Your task to perform on an android device: Add macbook air to the cart on walmart Image 0: 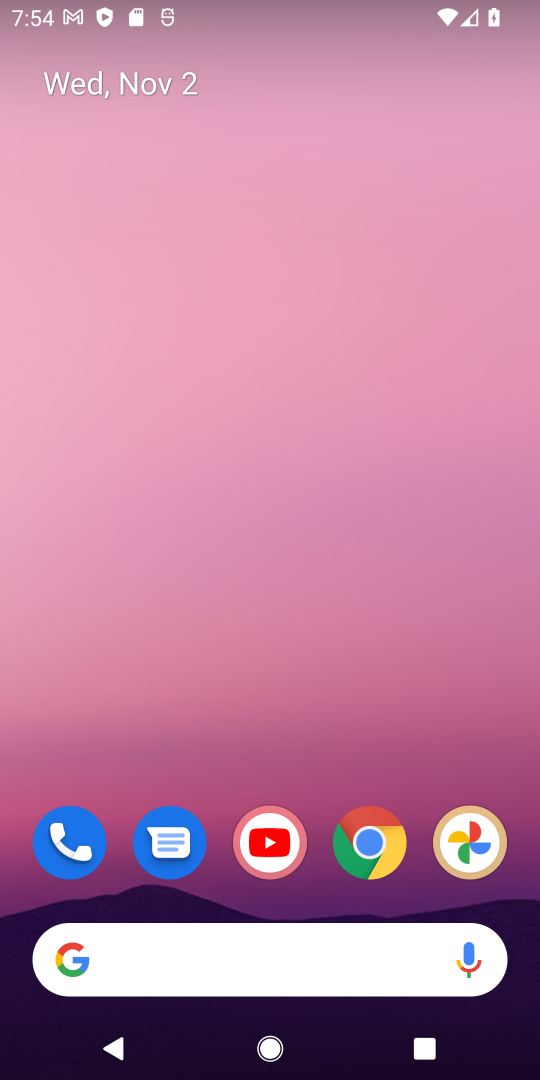
Step 0: drag from (160, 904) to (174, 326)
Your task to perform on an android device: Add macbook air to the cart on walmart Image 1: 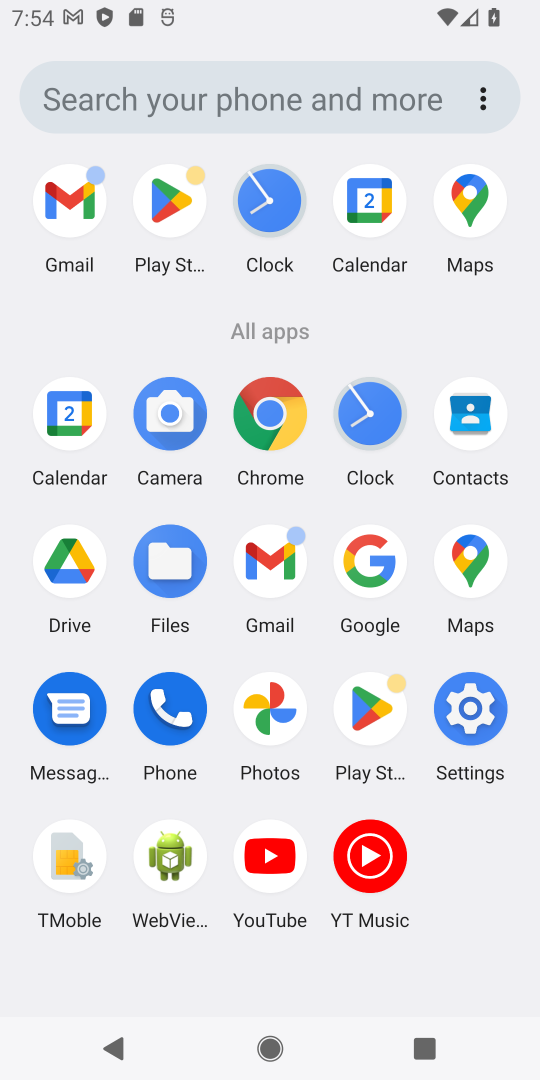
Step 1: click (351, 557)
Your task to perform on an android device: Add macbook air to the cart on walmart Image 2: 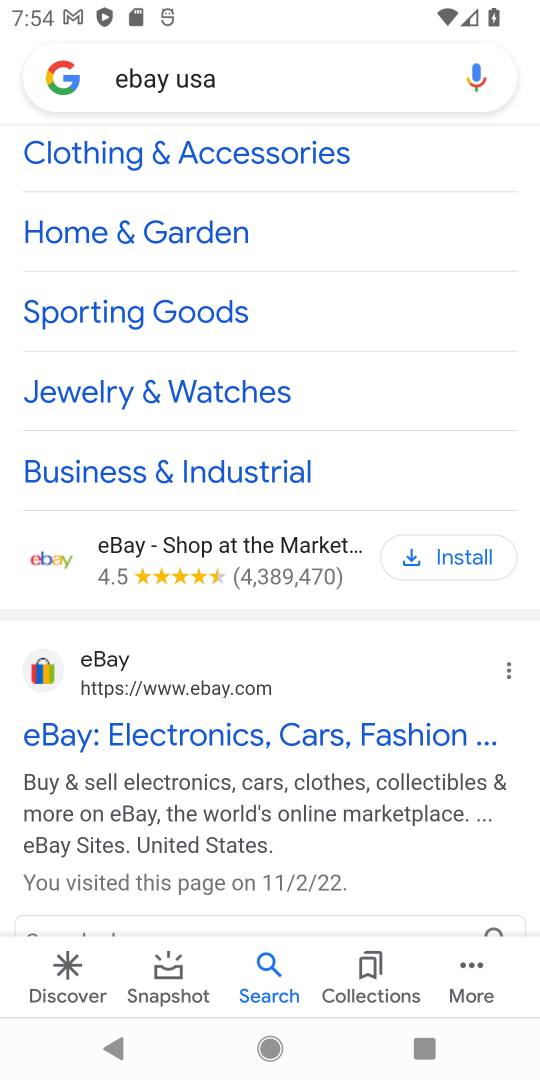
Step 2: click (221, 78)
Your task to perform on an android device: Add macbook air to the cart on walmart Image 3: 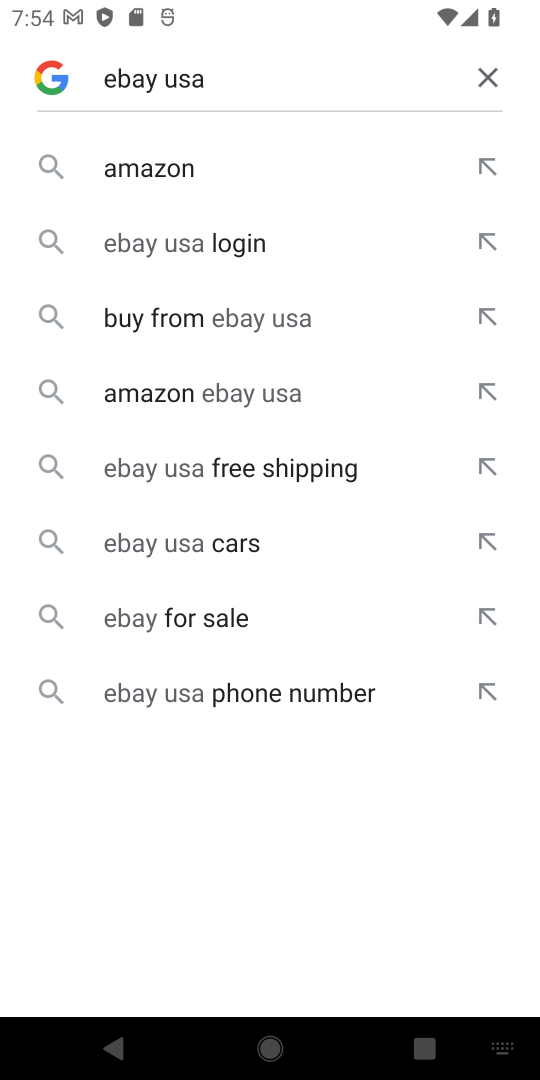
Step 3: click (474, 77)
Your task to perform on an android device: Add macbook air to the cart on walmart Image 4: 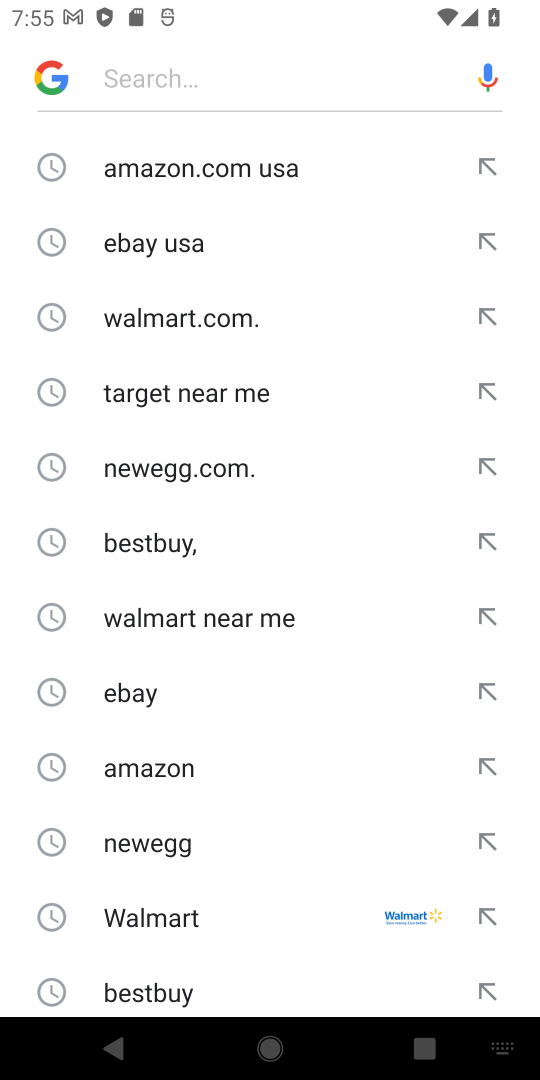
Step 4: click (215, 78)
Your task to perform on an android device: Add macbook air to the cart on walmart Image 5: 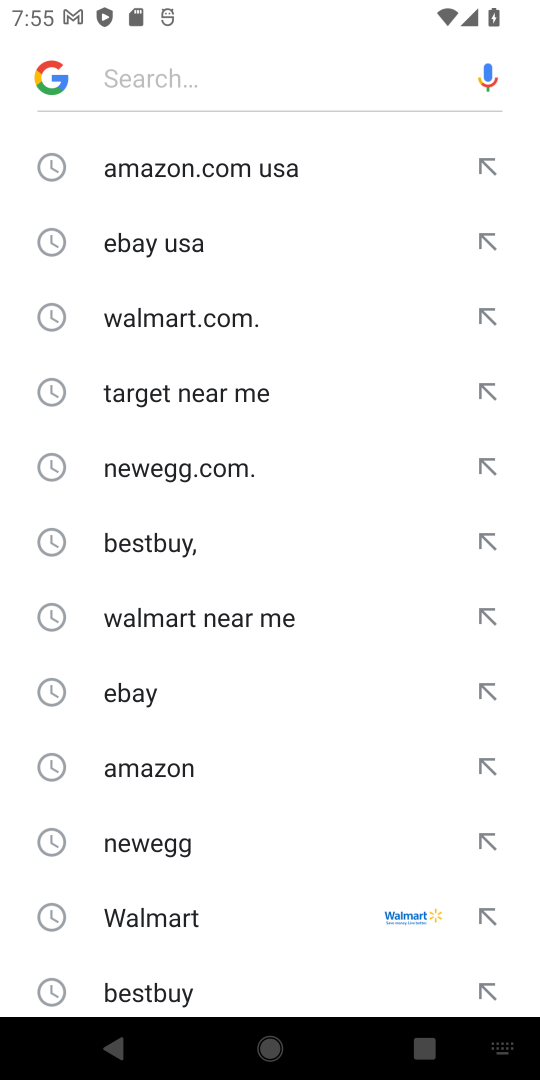
Step 5: type "walmart "
Your task to perform on an android device: Add macbook air to the cart on walmart Image 6: 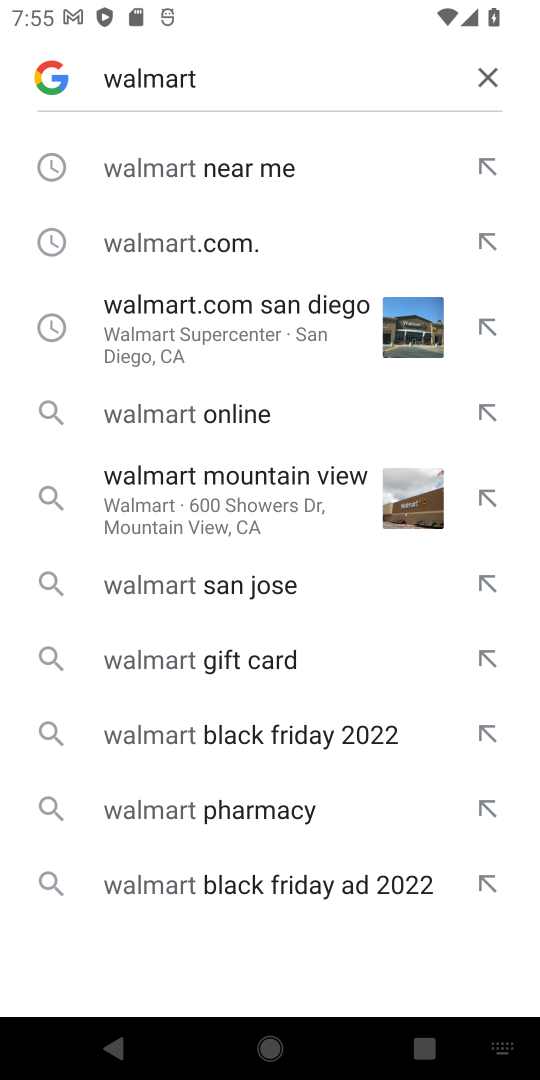
Step 6: click (136, 144)
Your task to perform on an android device: Add macbook air to the cart on walmart Image 7: 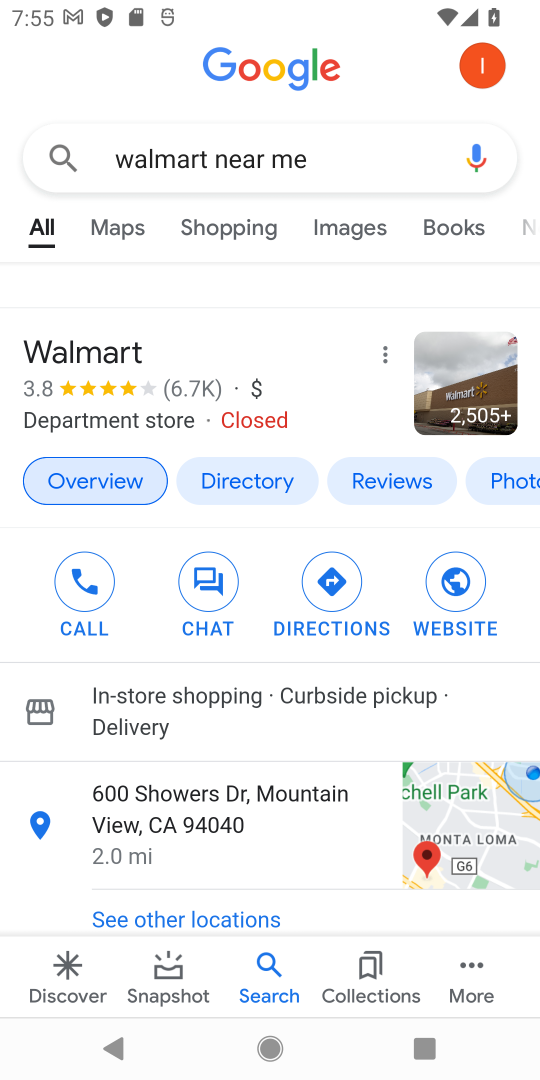
Step 7: drag from (170, 908) to (237, 219)
Your task to perform on an android device: Add macbook air to the cart on walmart Image 8: 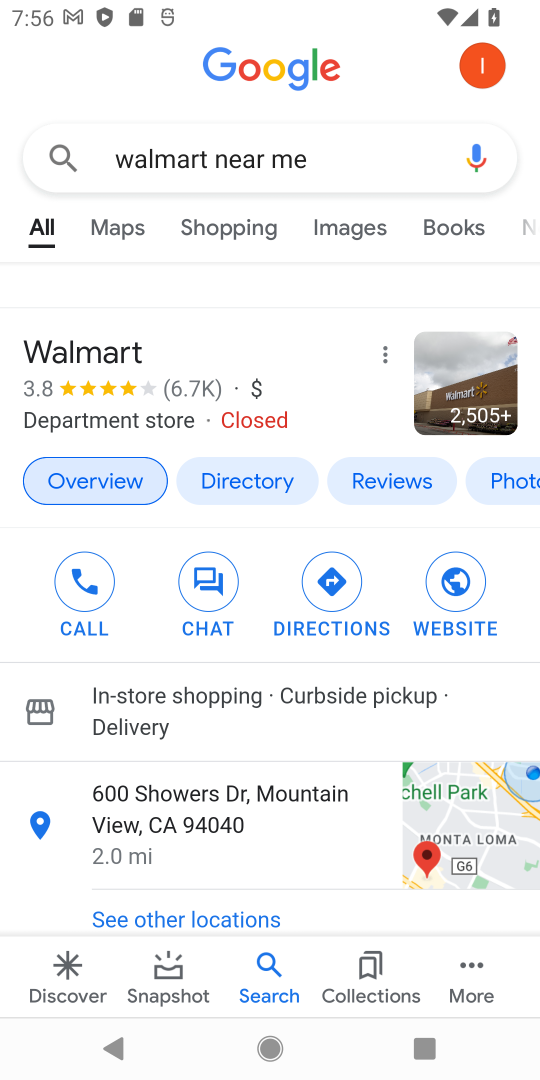
Step 8: drag from (245, 844) to (281, 137)
Your task to perform on an android device: Add macbook air to the cart on walmart Image 9: 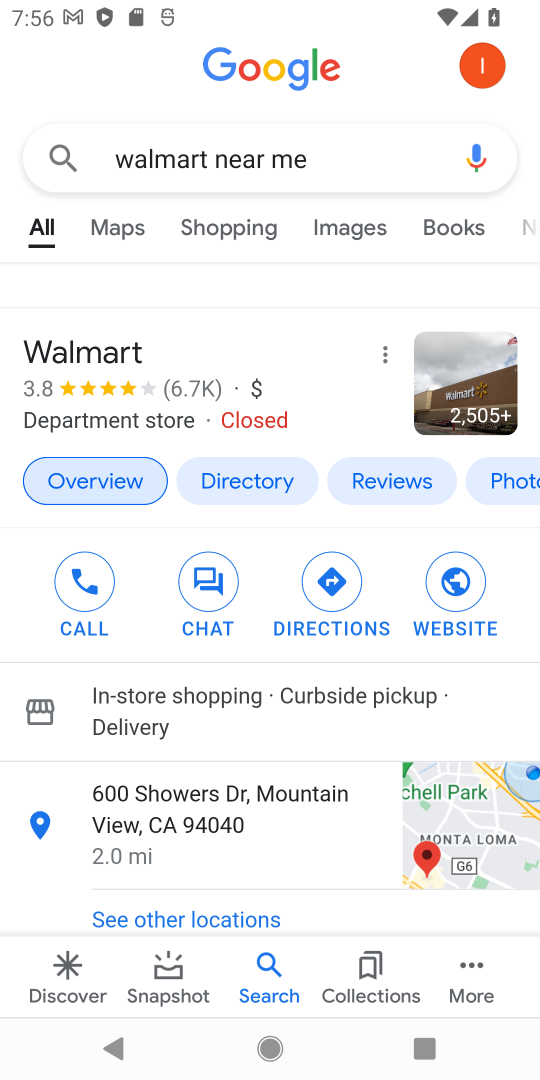
Step 9: drag from (279, 539) to (284, 305)
Your task to perform on an android device: Add macbook air to the cart on walmart Image 10: 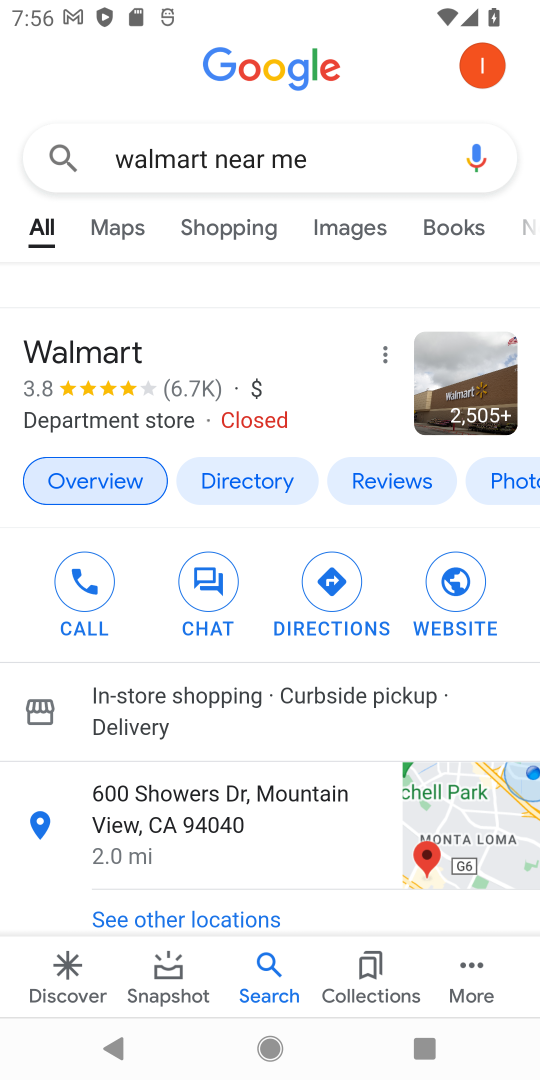
Step 10: drag from (250, 607) to (252, 429)
Your task to perform on an android device: Add macbook air to the cart on walmart Image 11: 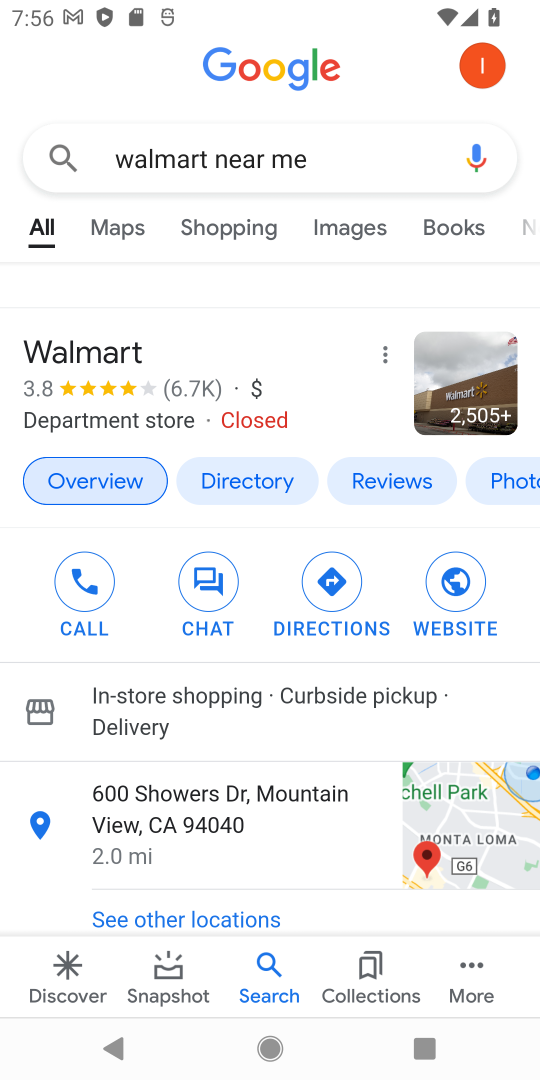
Step 11: drag from (172, 859) to (235, 435)
Your task to perform on an android device: Add macbook air to the cart on walmart Image 12: 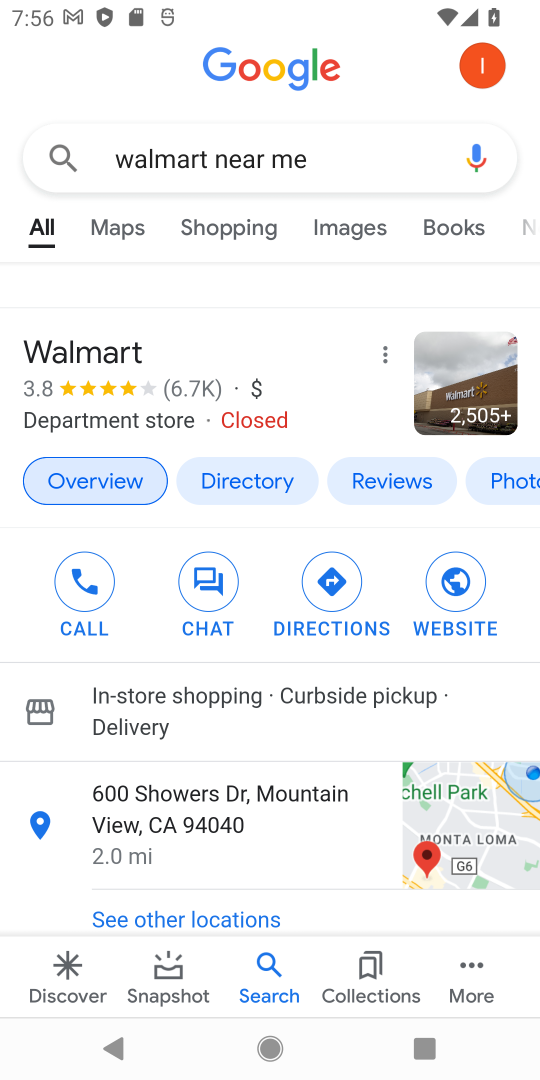
Step 12: drag from (104, 913) to (135, 604)
Your task to perform on an android device: Add macbook air to the cart on walmart Image 13: 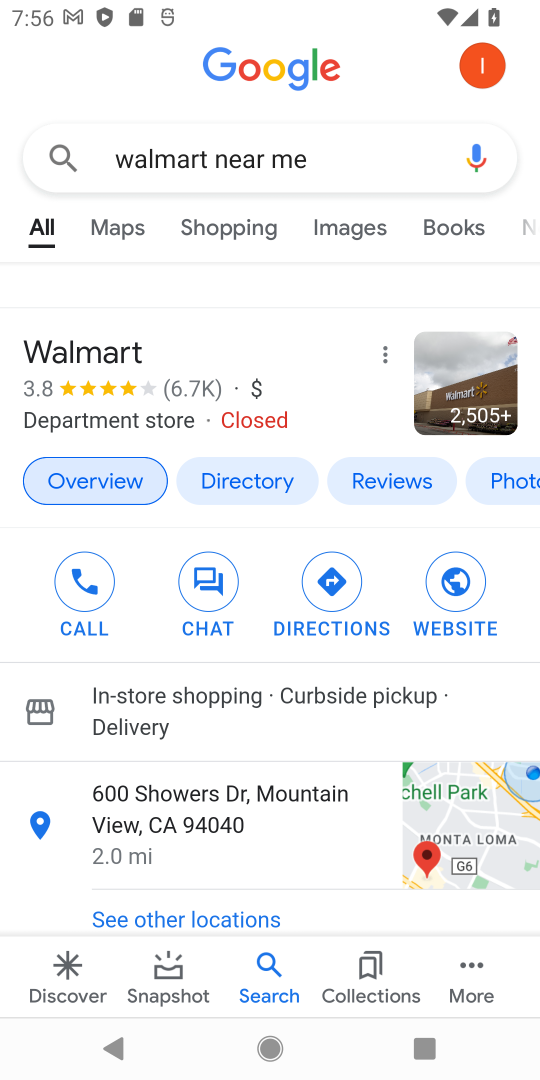
Step 13: click (322, 151)
Your task to perform on an android device: Add macbook air to the cart on walmart Image 14: 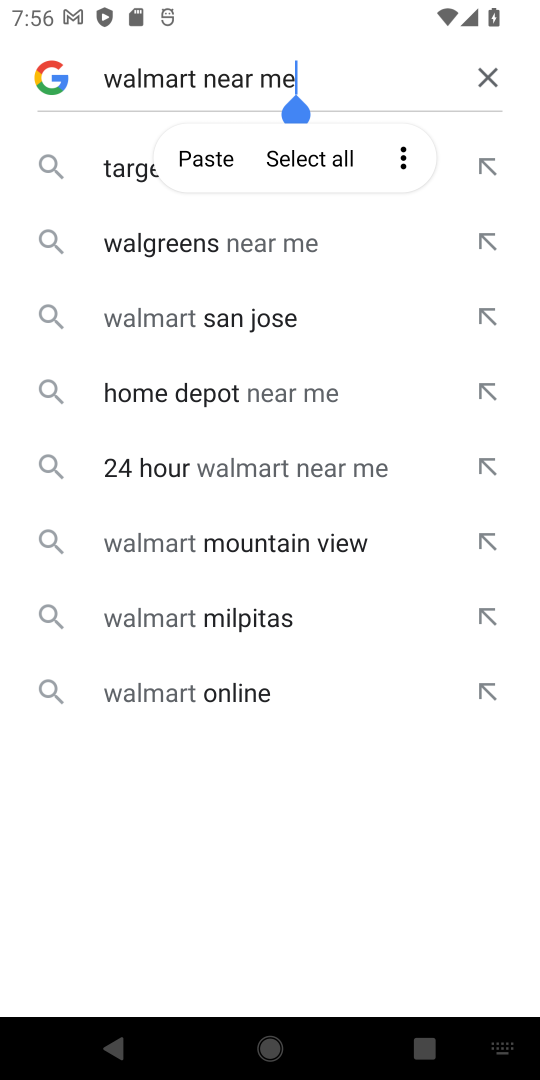
Step 14: click (491, 75)
Your task to perform on an android device: Add macbook air to the cart on walmart Image 15: 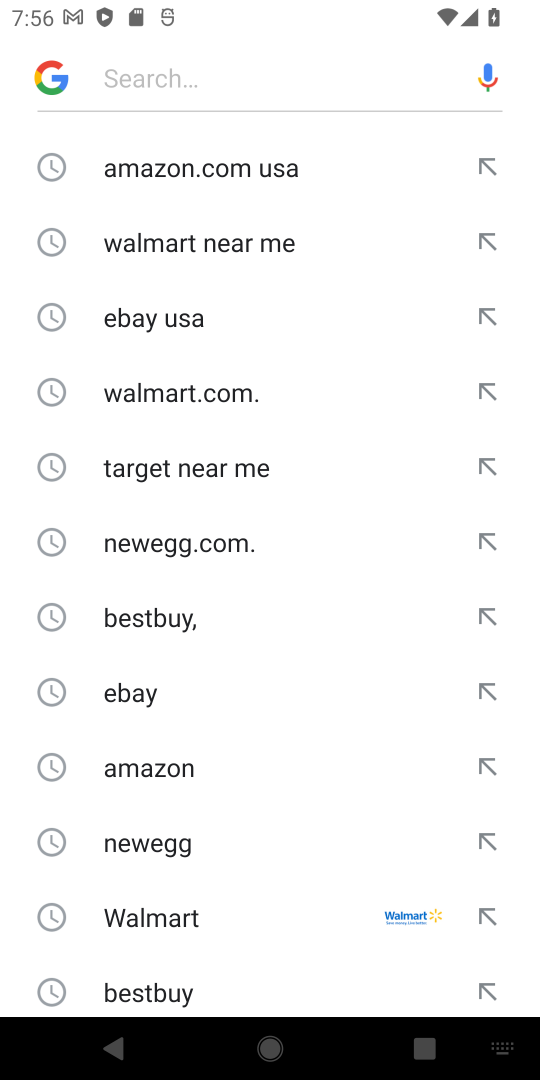
Step 15: click (167, 896)
Your task to perform on an android device: Add macbook air to the cart on walmart Image 16: 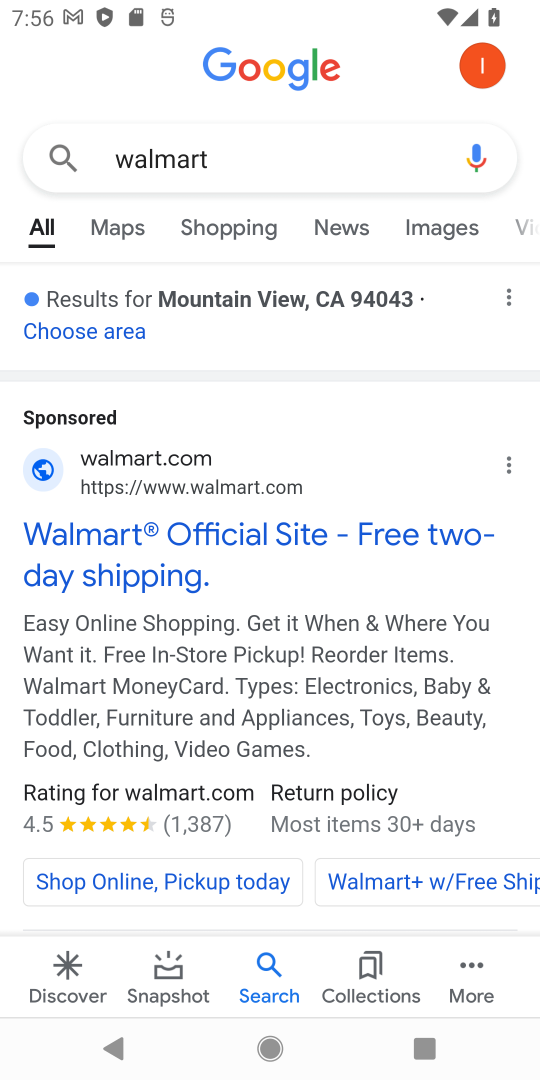
Step 16: drag from (215, 810) to (230, 234)
Your task to perform on an android device: Add macbook air to the cart on walmart Image 17: 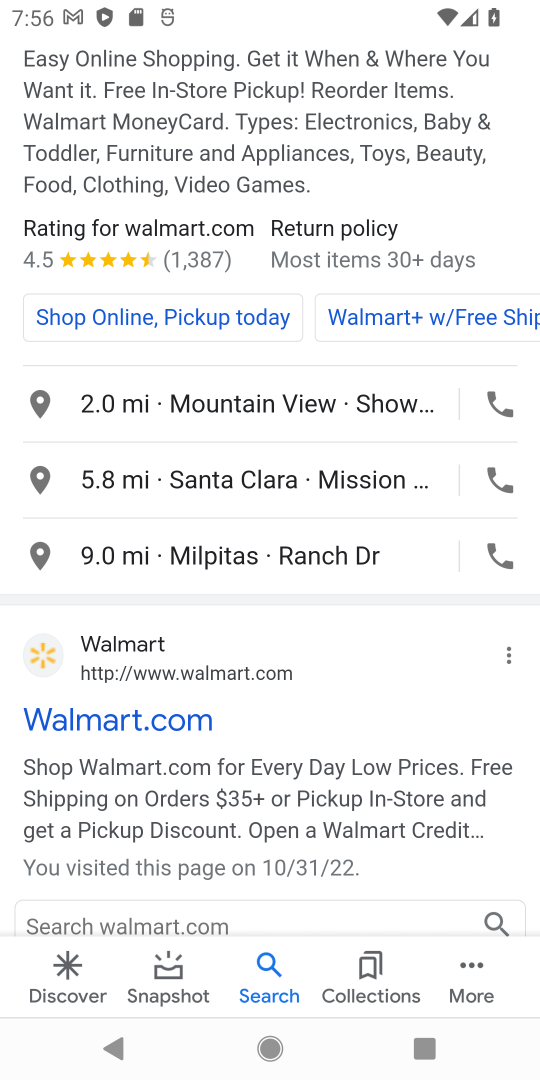
Step 17: drag from (203, 805) to (238, 406)
Your task to perform on an android device: Add macbook air to the cart on walmart Image 18: 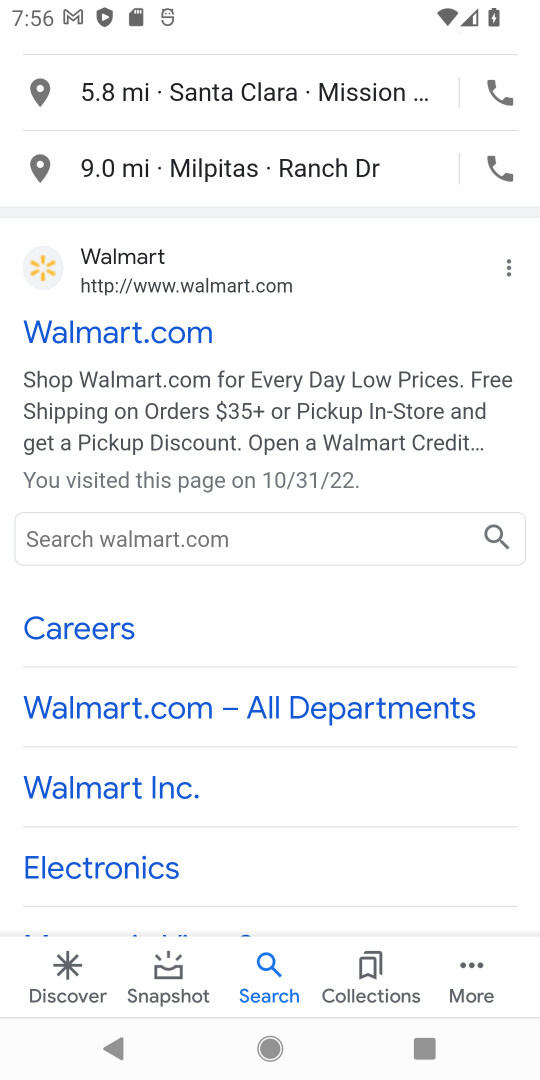
Step 18: click (38, 277)
Your task to perform on an android device: Add macbook air to the cart on walmart Image 19: 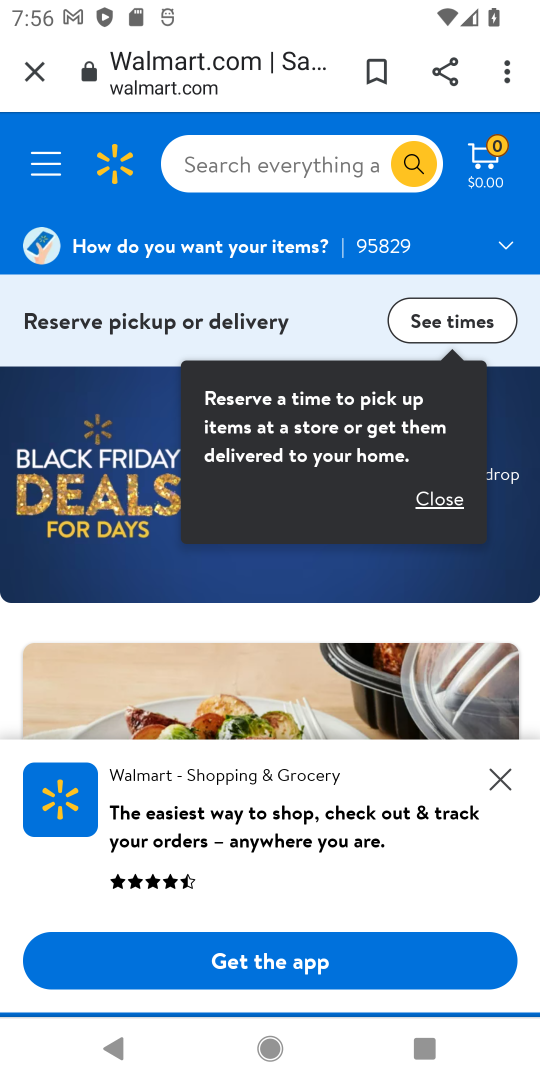
Step 19: click (250, 137)
Your task to perform on an android device: Add macbook air to the cart on walmart Image 20: 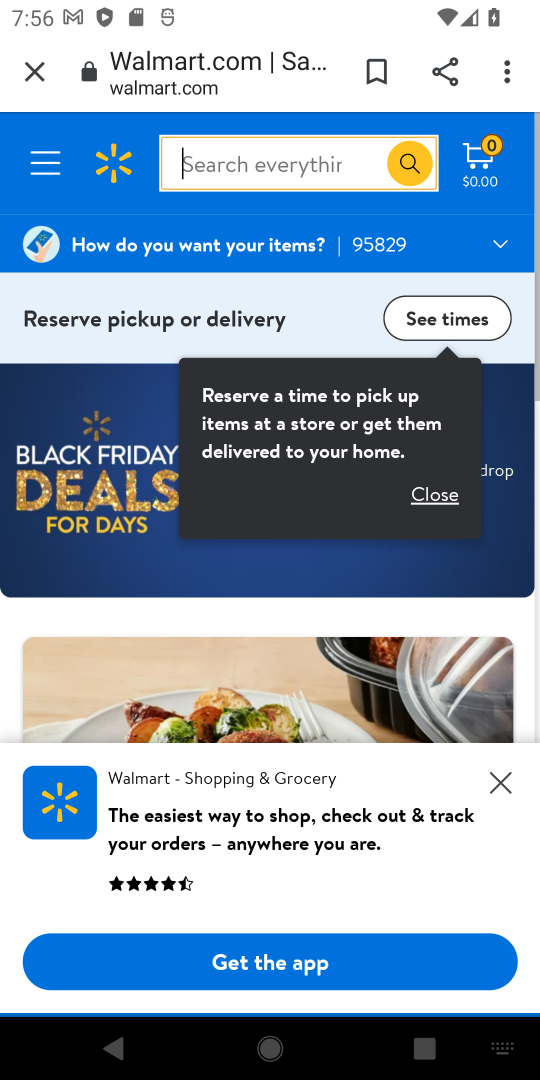
Step 20: type "macbook "
Your task to perform on an android device: Add macbook air to the cart on walmart Image 21: 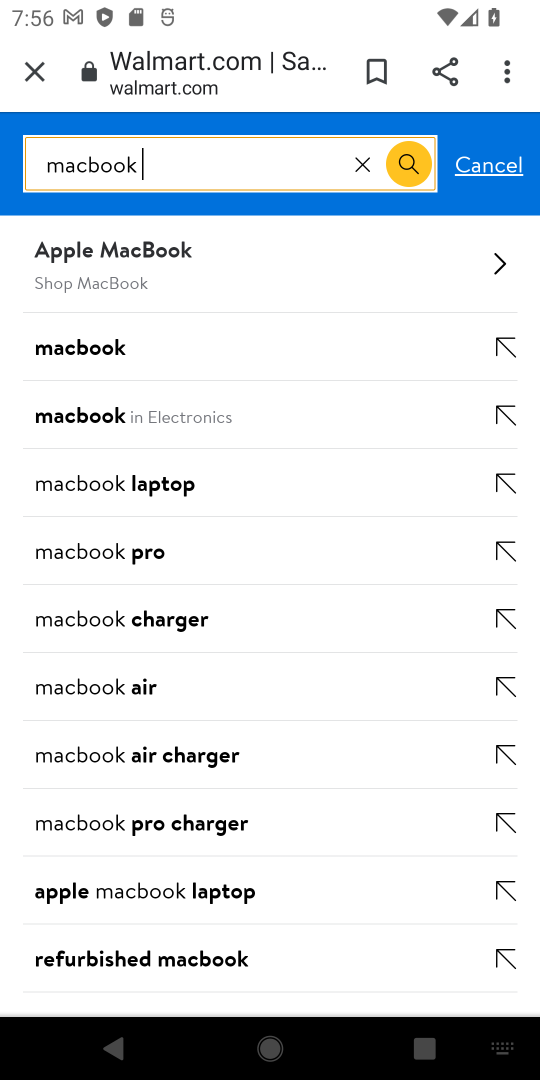
Step 21: click (83, 351)
Your task to perform on an android device: Add macbook air to the cart on walmart Image 22: 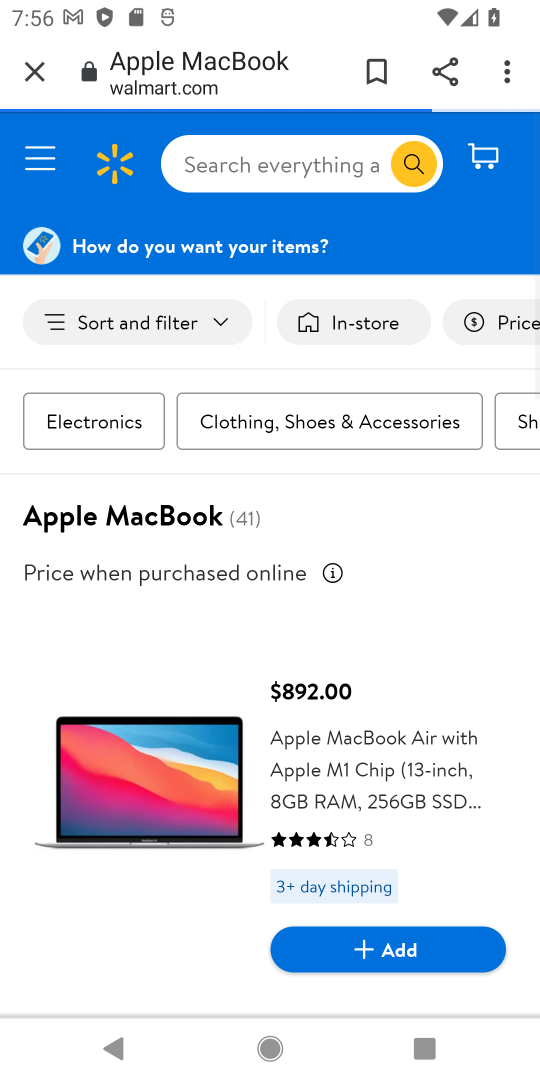
Step 22: click (489, 783)
Your task to perform on an android device: Add macbook air to the cart on walmart Image 23: 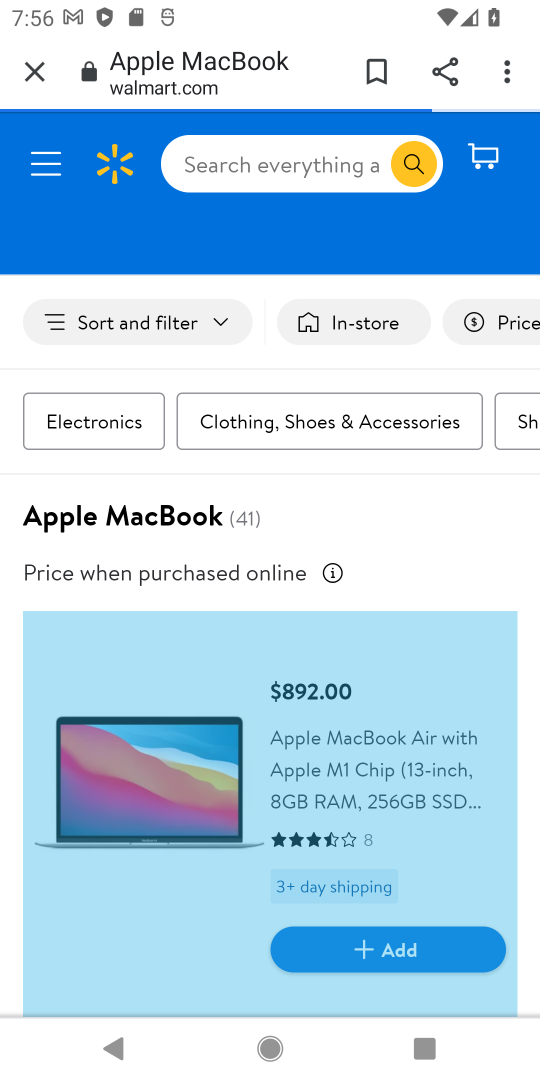
Step 23: click (408, 959)
Your task to perform on an android device: Add macbook air to the cart on walmart Image 24: 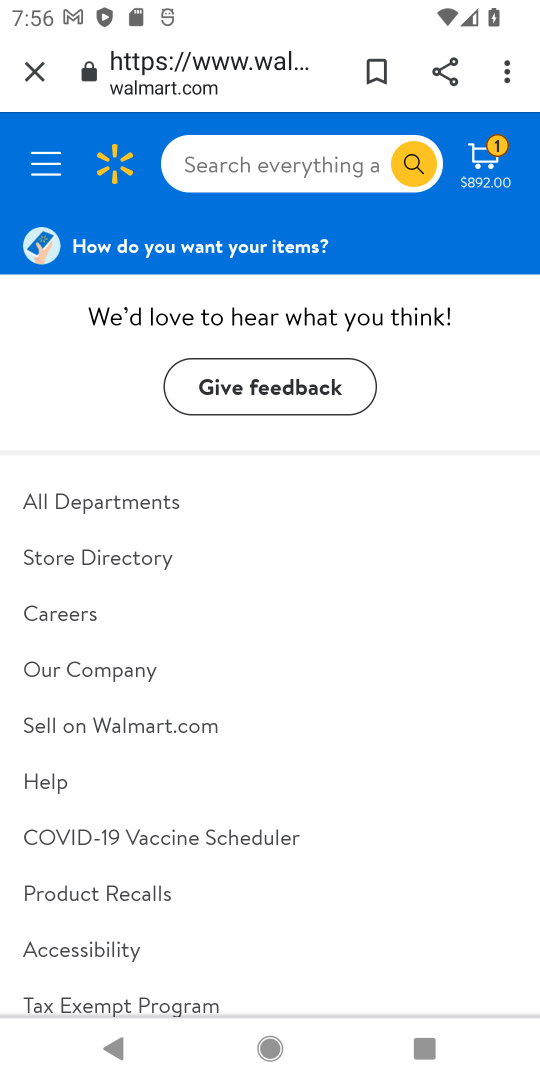
Step 24: click (405, 951)
Your task to perform on an android device: Add macbook air to the cart on walmart Image 25: 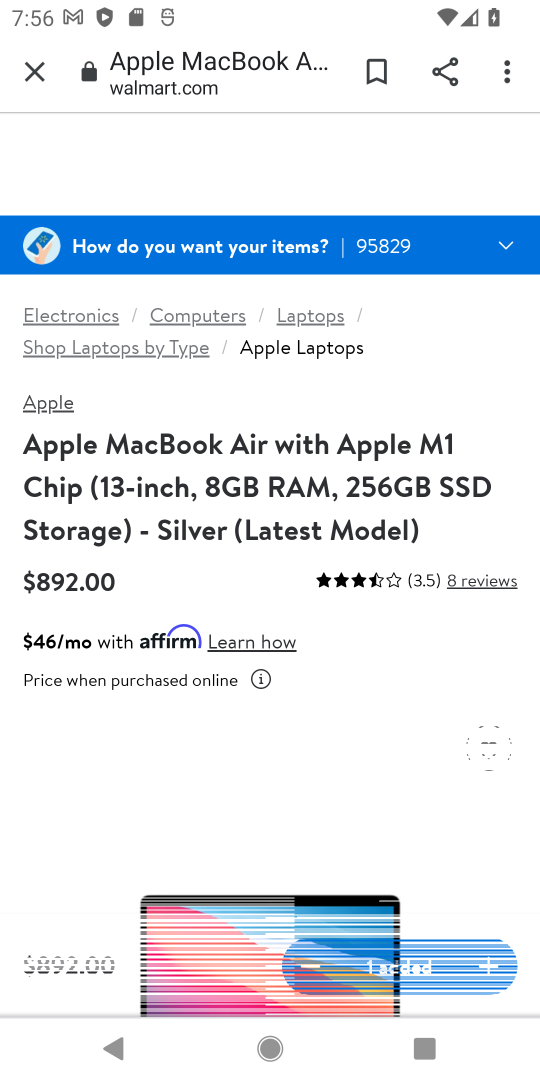
Step 25: task complete